Your task to perform on an android device: Go to Google maps Image 0: 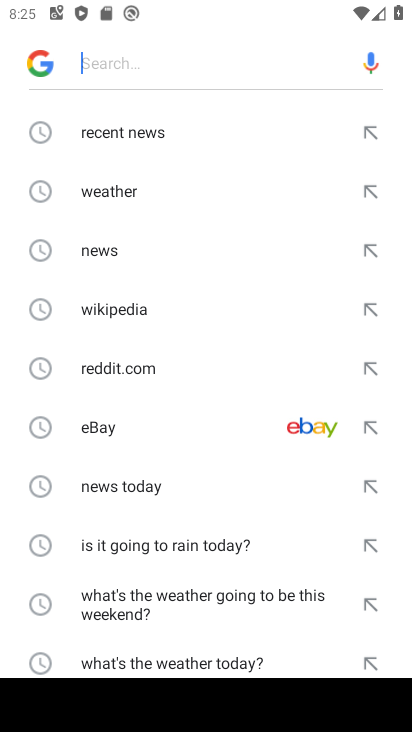
Step 0: press home button
Your task to perform on an android device: Go to Google maps Image 1: 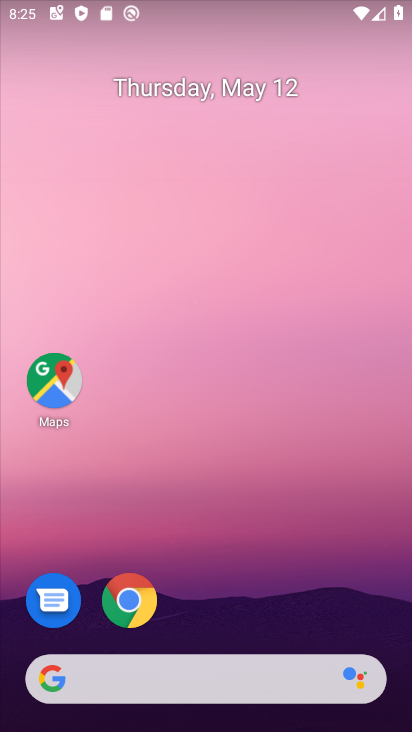
Step 1: drag from (215, 571) to (216, 202)
Your task to perform on an android device: Go to Google maps Image 2: 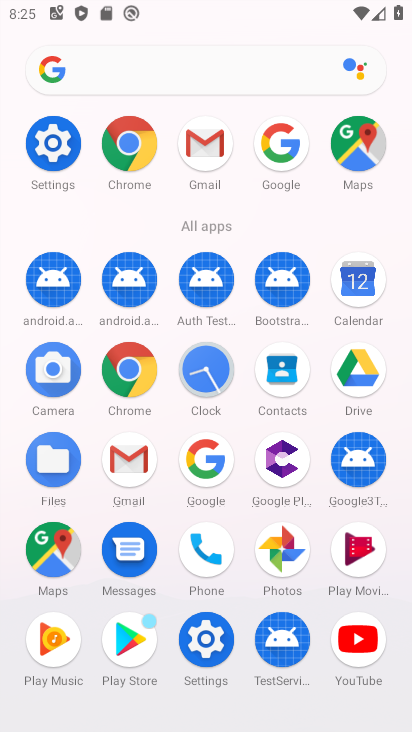
Step 2: click (60, 565)
Your task to perform on an android device: Go to Google maps Image 3: 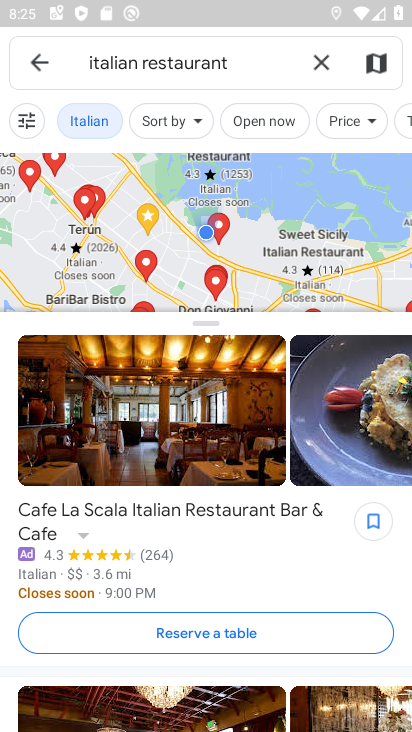
Step 3: task complete